Your task to perform on an android device: open app "ZOOM Cloud Meetings" (install if not already installed) and enter user name: "bauxite@icloud.com" and password: "dim" Image 0: 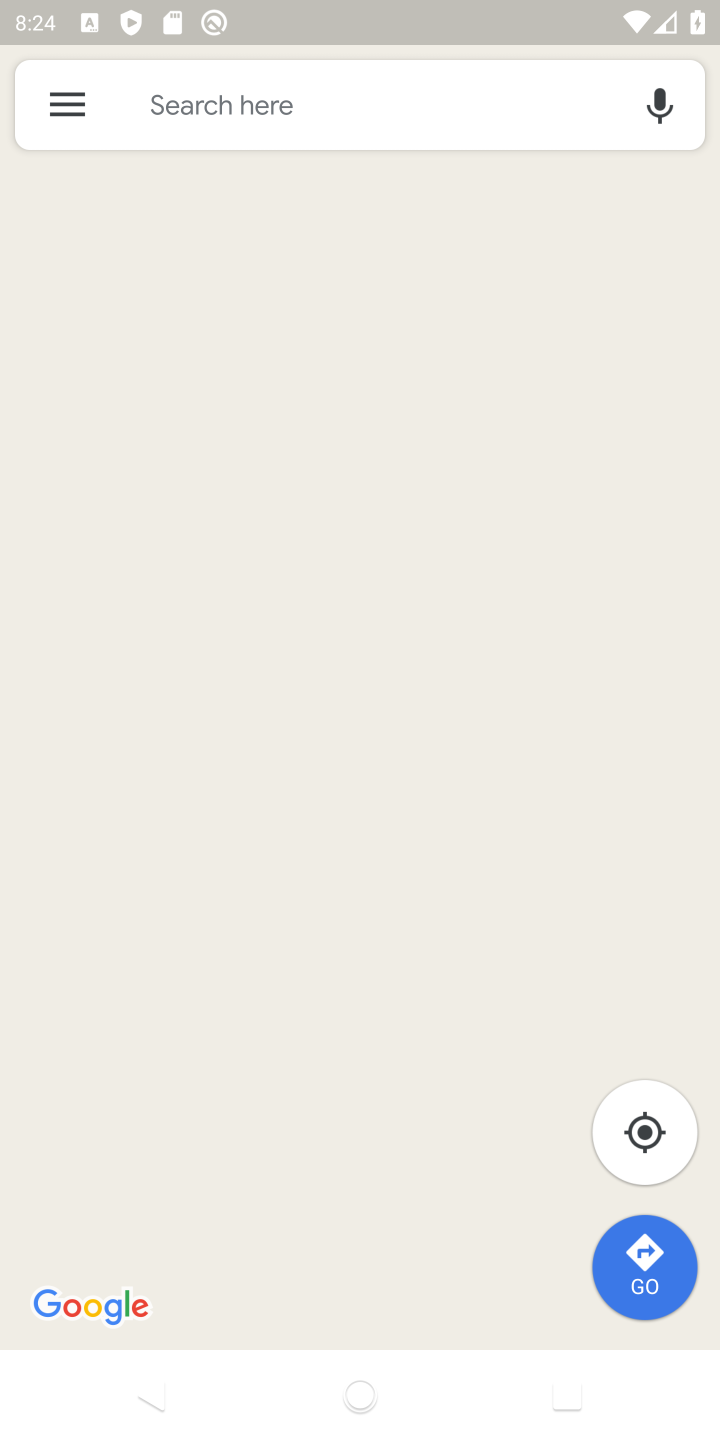
Step 0: press home button
Your task to perform on an android device: open app "ZOOM Cloud Meetings" (install if not already installed) and enter user name: "bauxite@icloud.com" and password: "dim" Image 1: 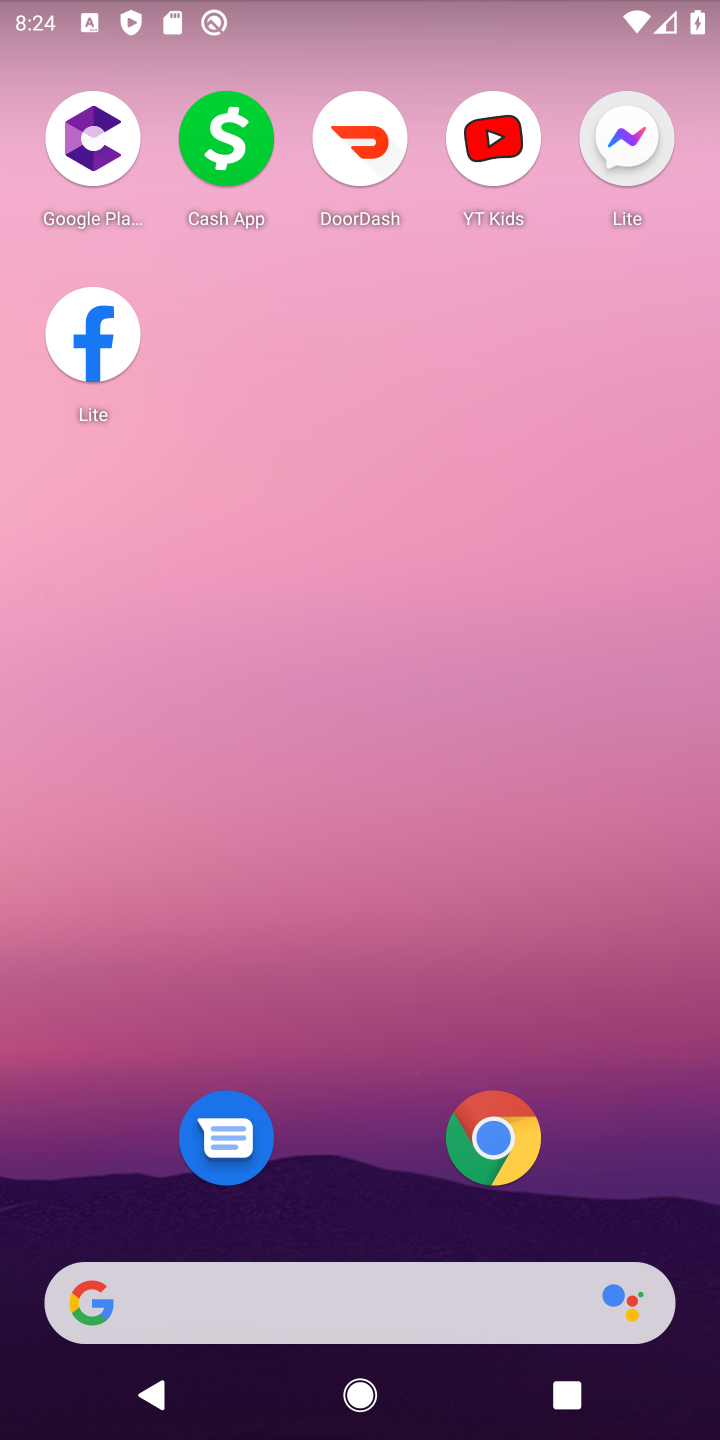
Step 1: drag from (294, 1253) to (353, 258)
Your task to perform on an android device: open app "ZOOM Cloud Meetings" (install if not already installed) and enter user name: "bauxite@icloud.com" and password: "dim" Image 2: 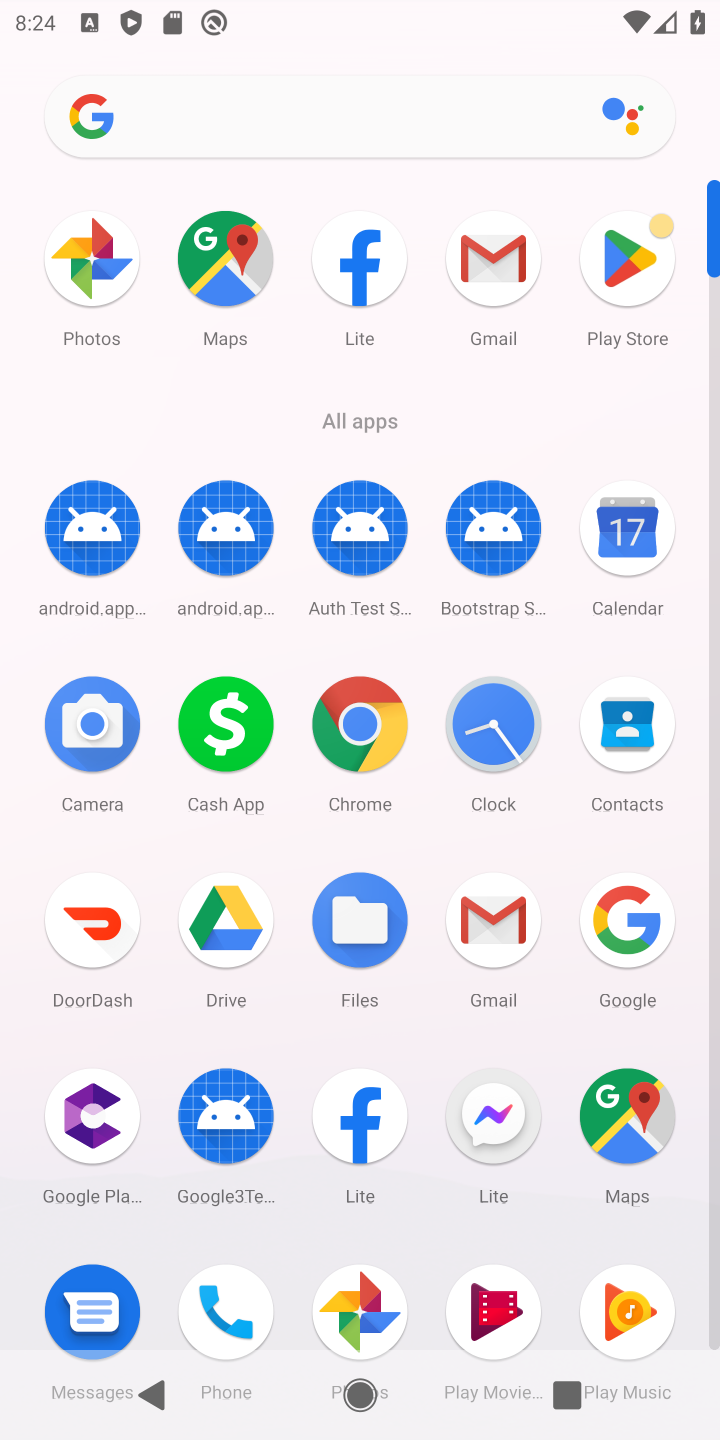
Step 2: click (622, 275)
Your task to perform on an android device: open app "ZOOM Cloud Meetings" (install if not already installed) and enter user name: "bauxite@icloud.com" and password: "dim" Image 3: 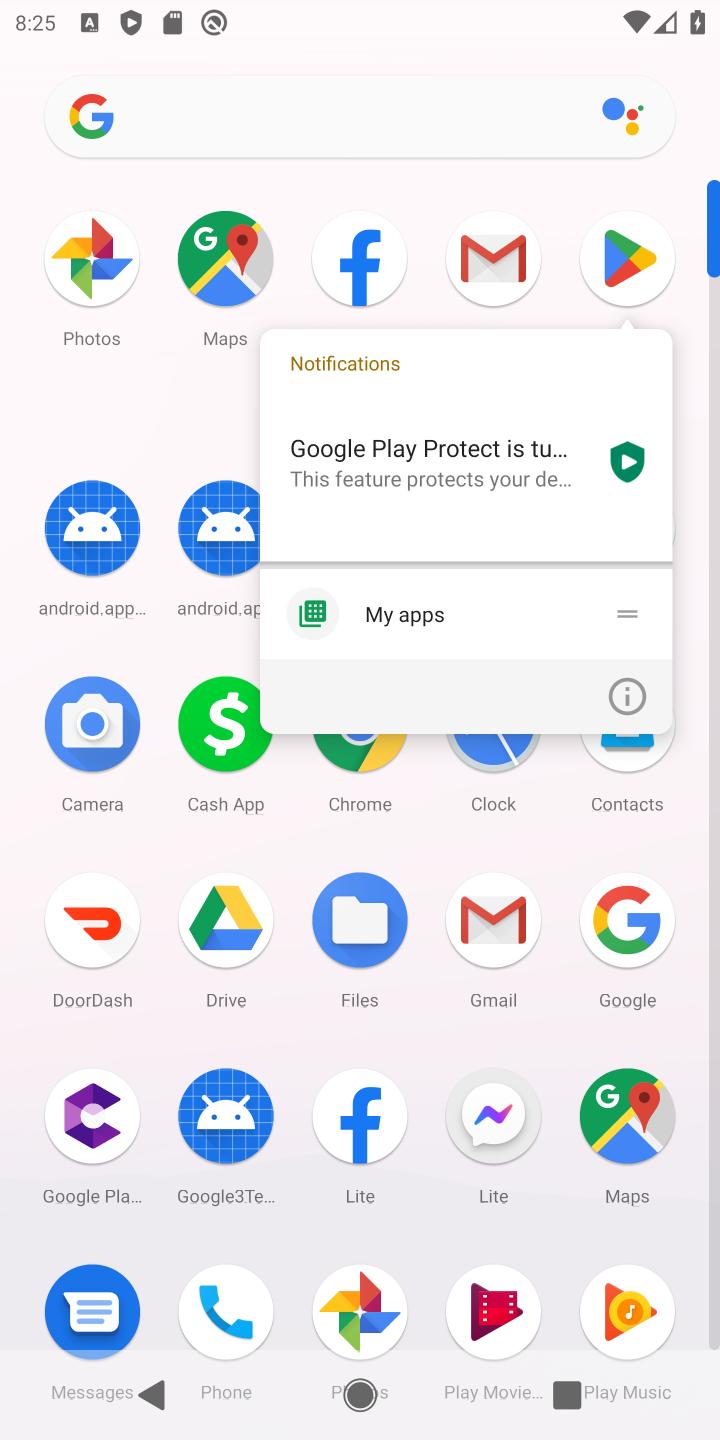
Step 3: click (607, 289)
Your task to perform on an android device: open app "ZOOM Cloud Meetings" (install if not already installed) and enter user name: "bauxite@icloud.com" and password: "dim" Image 4: 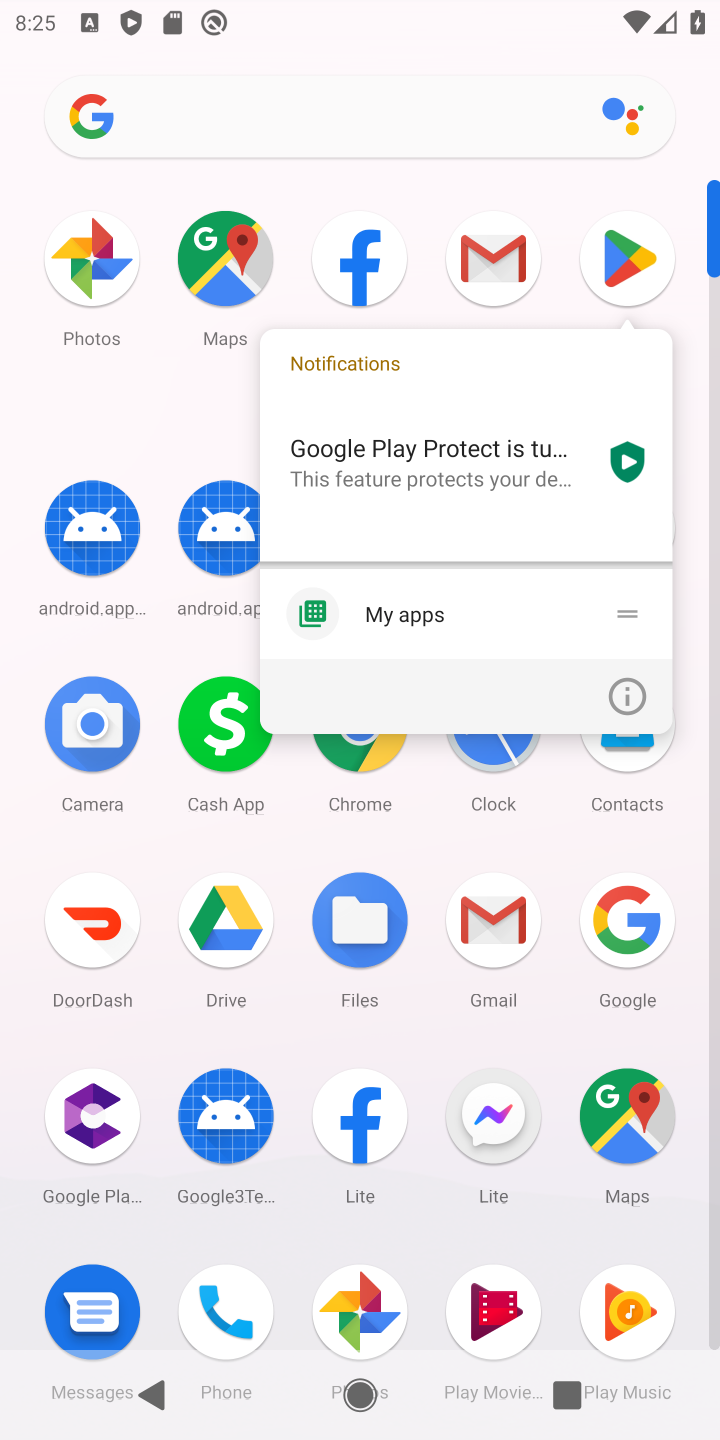
Step 4: click (605, 278)
Your task to perform on an android device: open app "ZOOM Cloud Meetings" (install if not already installed) and enter user name: "bauxite@icloud.com" and password: "dim" Image 5: 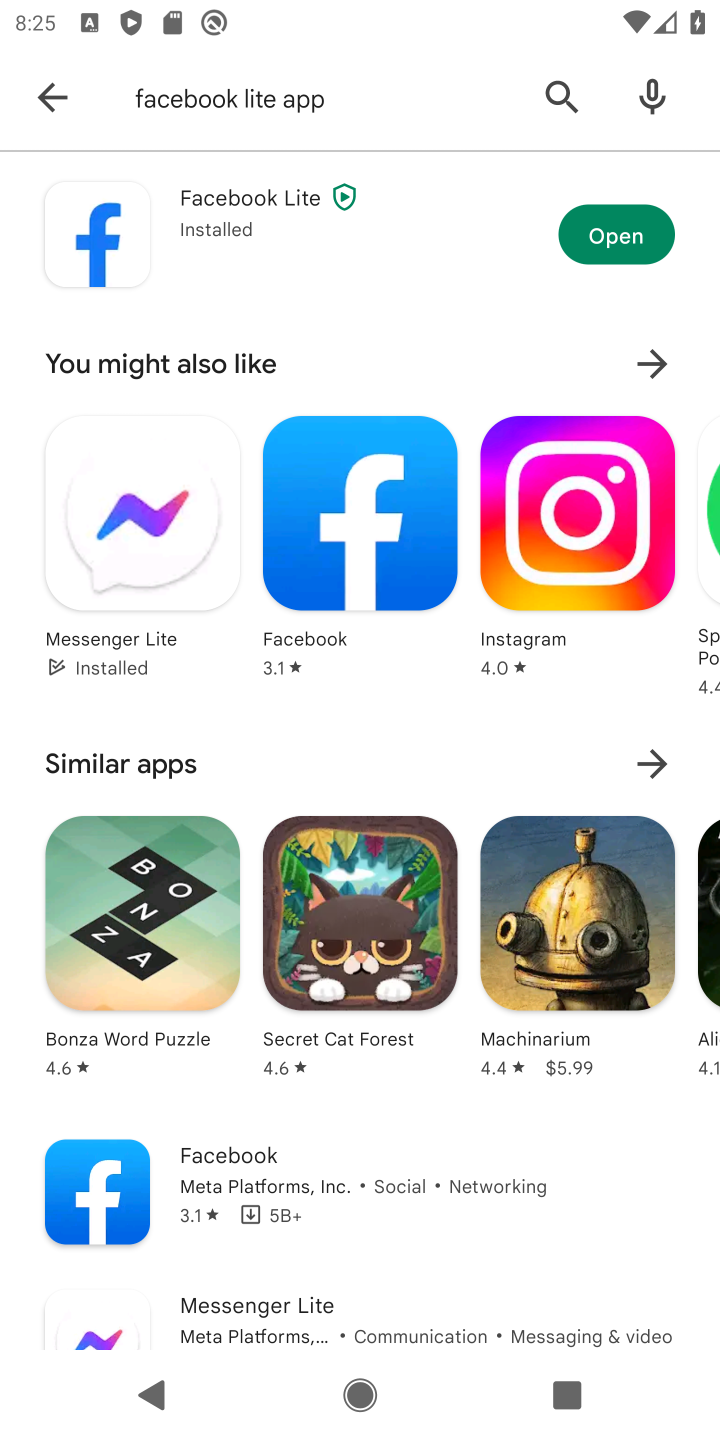
Step 5: click (70, 90)
Your task to perform on an android device: open app "ZOOM Cloud Meetings" (install if not already installed) and enter user name: "bauxite@icloud.com" and password: "dim" Image 6: 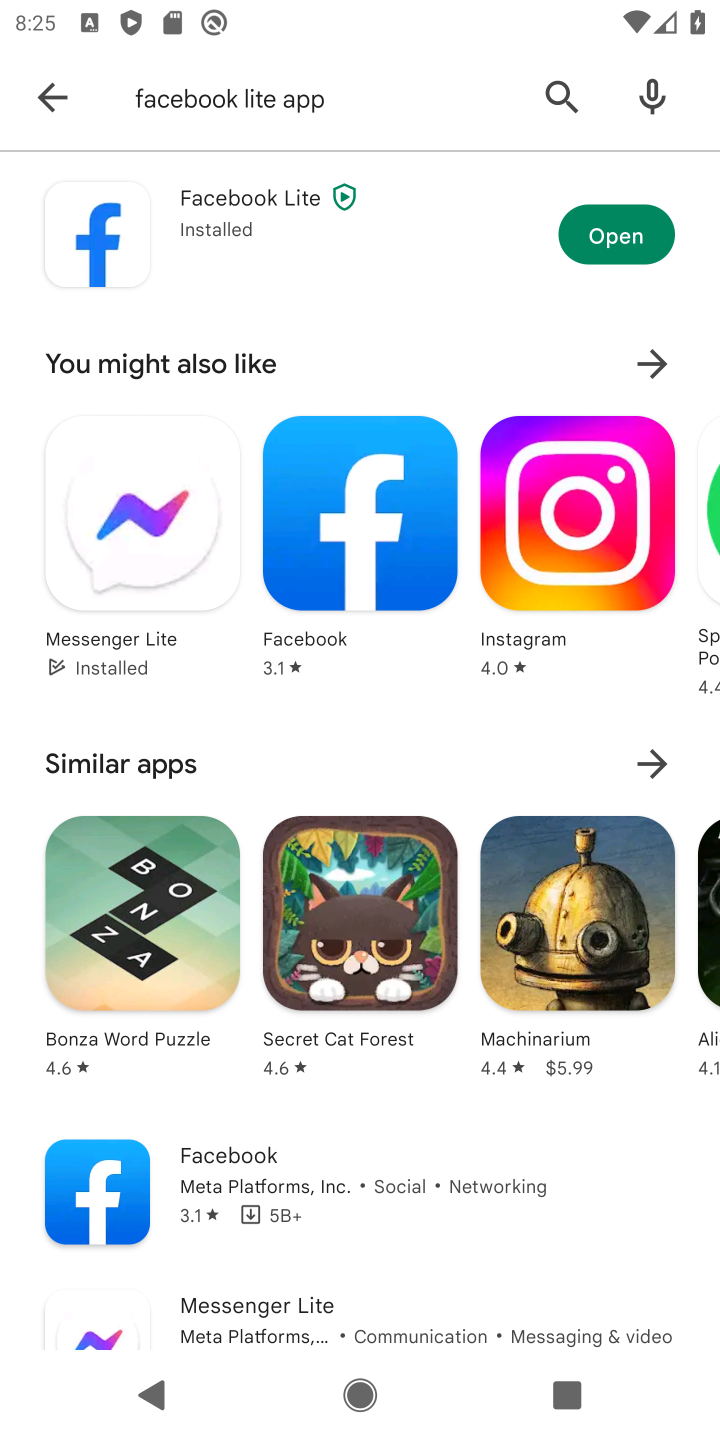
Step 6: click (48, 93)
Your task to perform on an android device: open app "ZOOM Cloud Meetings" (install if not already installed) and enter user name: "bauxite@icloud.com" and password: "dim" Image 7: 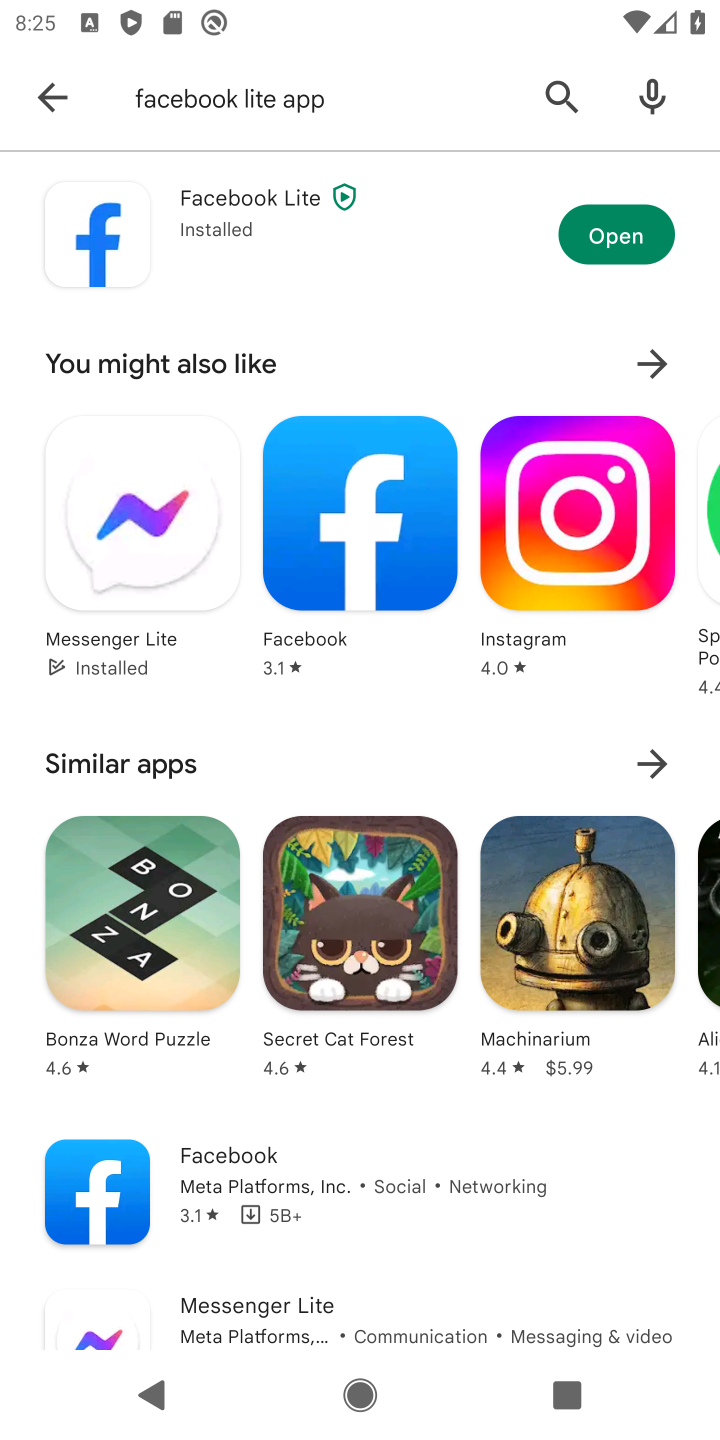
Step 7: click (70, 85)
Your task to perform on an android device: open app "ZOOM Cloud Meetings" (install if not already installed) and enter user name: "bauxite@icloud.com" and password: "dim" Image 8: 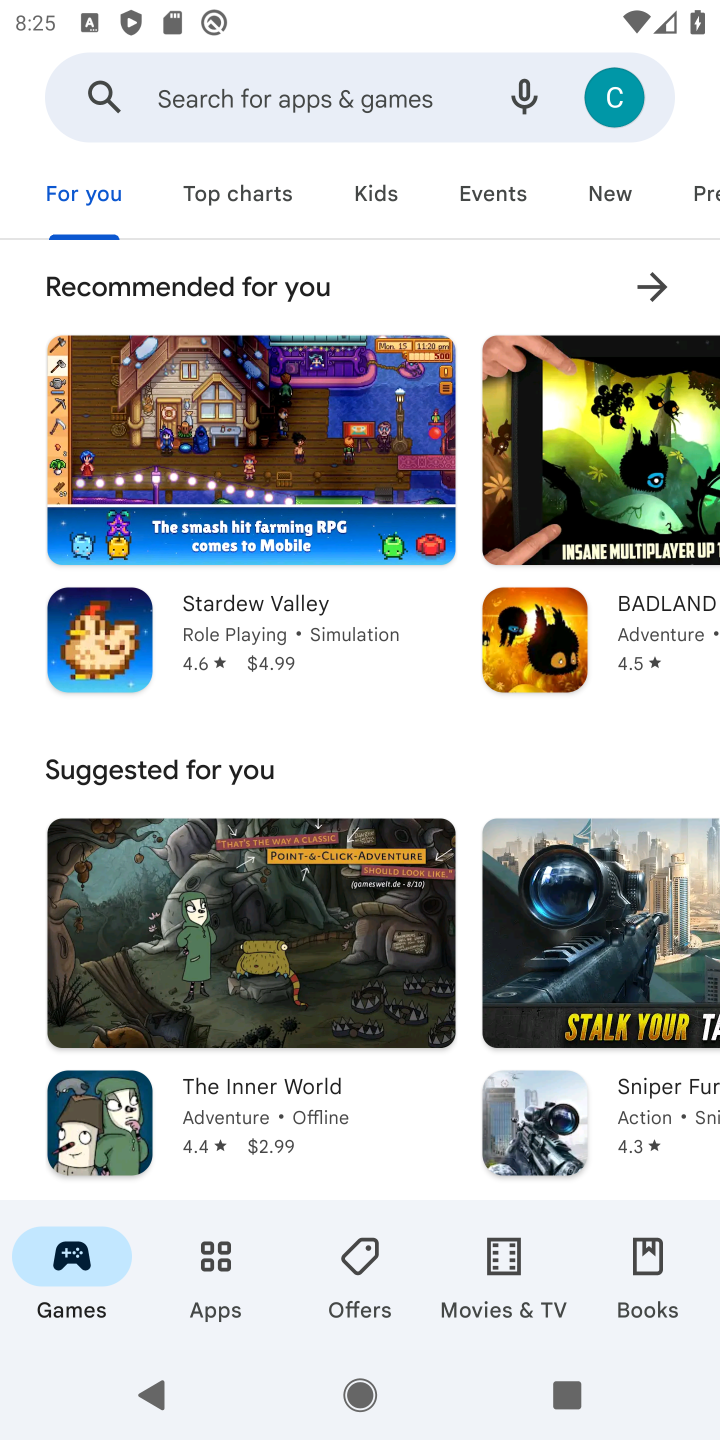
Step 8: click (253, 86)
Your task to perform on an android device: open app "ZOOM Cloud Meetings" (install if not already installed) and enter user name: "bauxite@icloud.com" and password: "dim" Image 9: 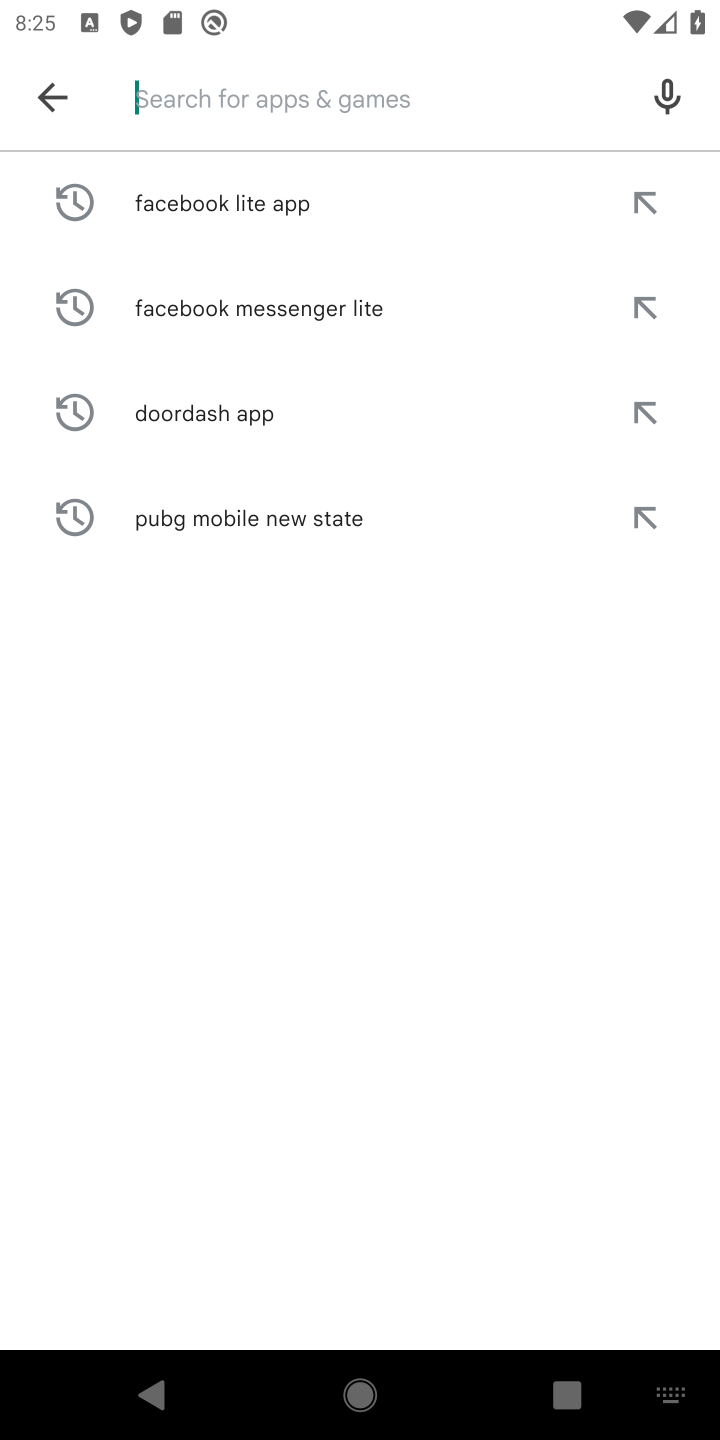
Step 9: type "ZOOM Cloud Meeting "
Your task to perform on an android device: open app "ZOOM Cloud Meetings" (install if not already installed) and enter user name: "bauxite@icloud.com" and password: "dim" Image 10: 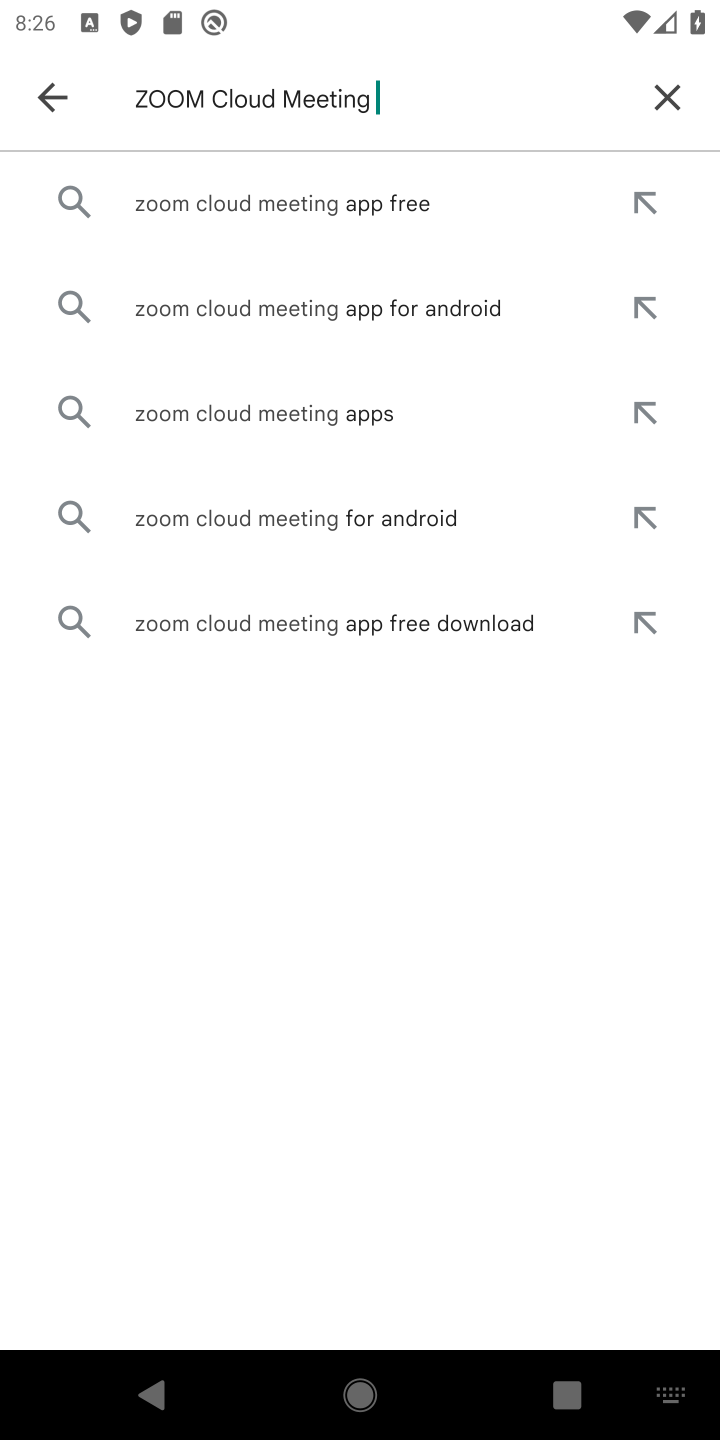
Step 10: click (316, 211)
Your task to perform on an android device: open app "ZOOM Cloud Meetings" (install if not already installed) and enter user name: "bauxite@icloud.com" and password: "dim" Image 11: 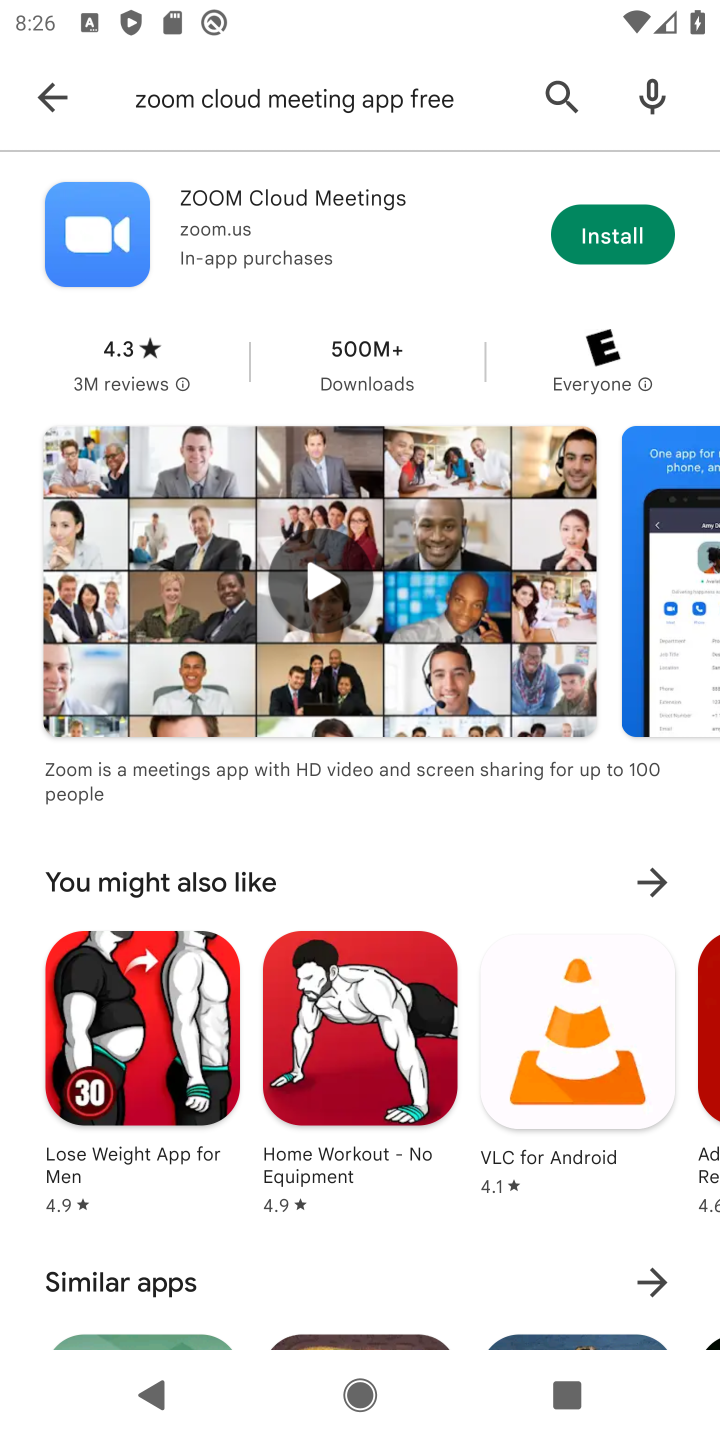
Step 11: click (619, 243)
Your task to perform on an android device: open app "ZOOM Cloud Meetings" (install if not already installed) and enter user name: "bauxite@icloud.com" and password: "dim" Image 12: 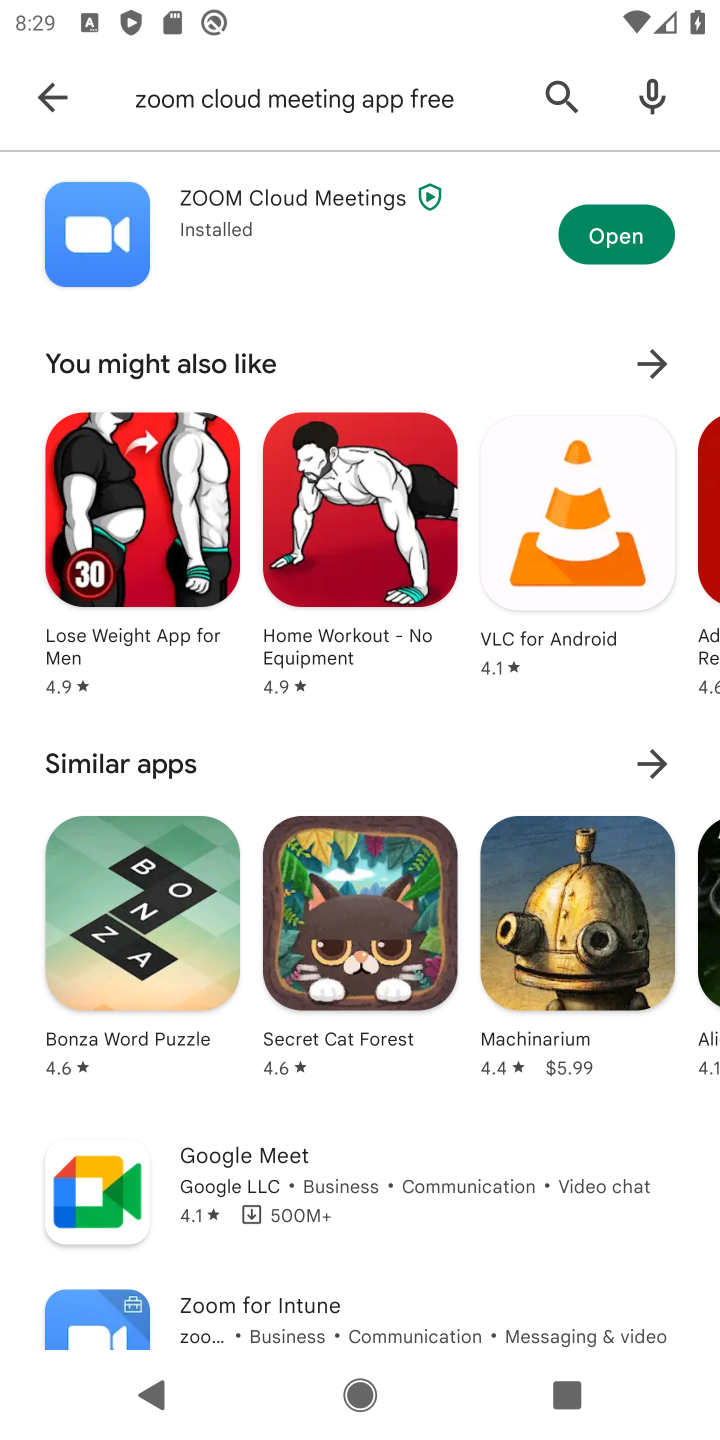
Step 12: click (612, 212)
Your task to perform on an android device: open app "ZOOM Cloud Meetings" (install if not already installed) and enter user name: "bauxite@icloud.com" and password: "dim" Image 13: 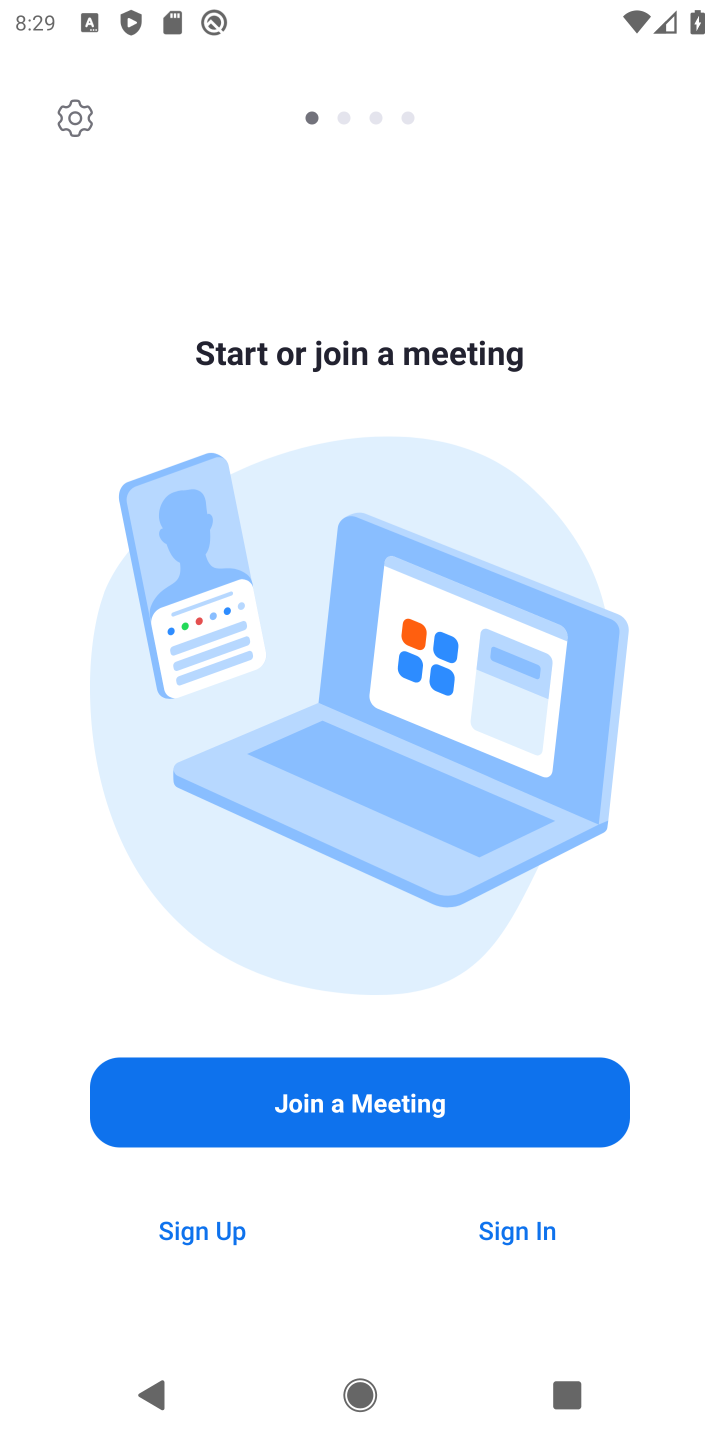
Step 13: click (476, 1228)
Your task to perform on an android device: open app "ZOOM Cloud Meetings" (install if not already installed) and enter user name: "bauxite@icloud.com" and password: "dim" Image 14: 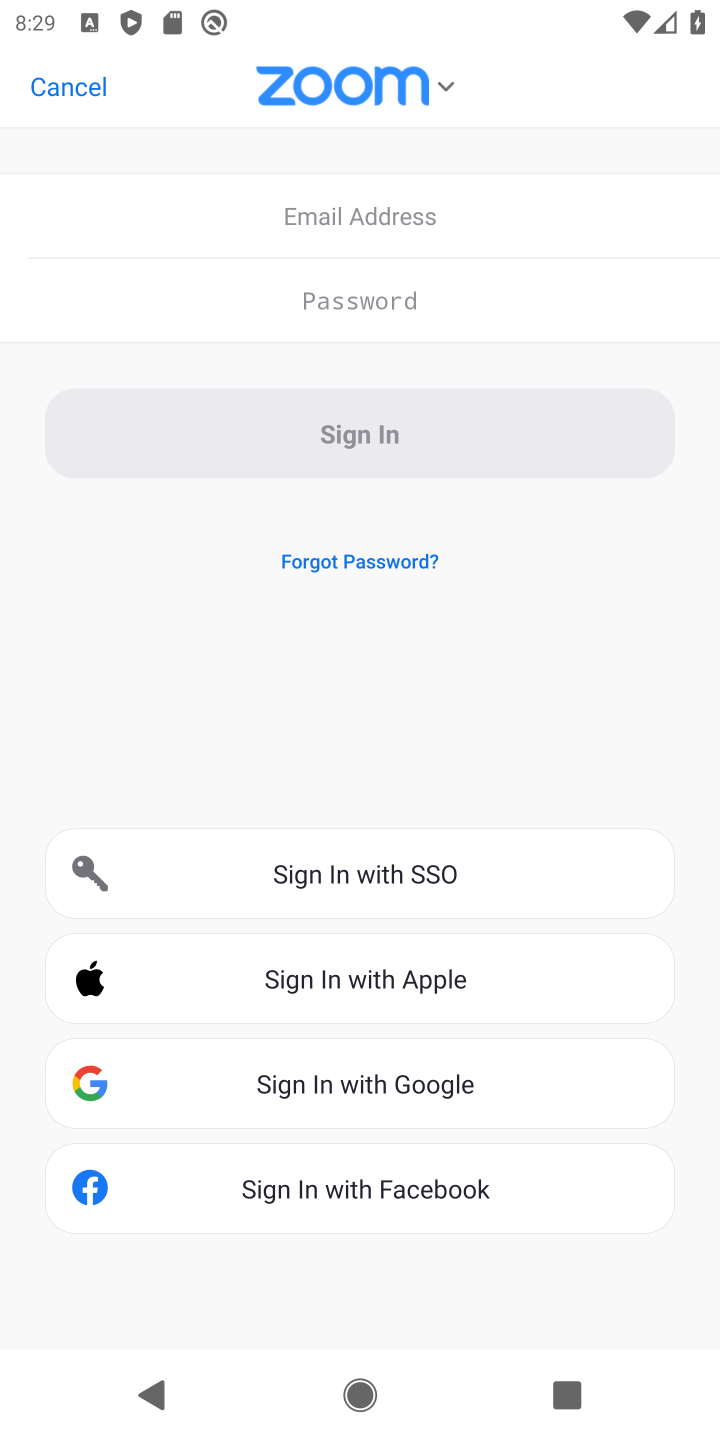
Step 14: click (425, 194)
Your task to perform on an android device: open app "ZOOM Cloud Meetings" (install if not already installed) and enter user name: "bauxite@icloud.com" and password: "dim" Image 15: 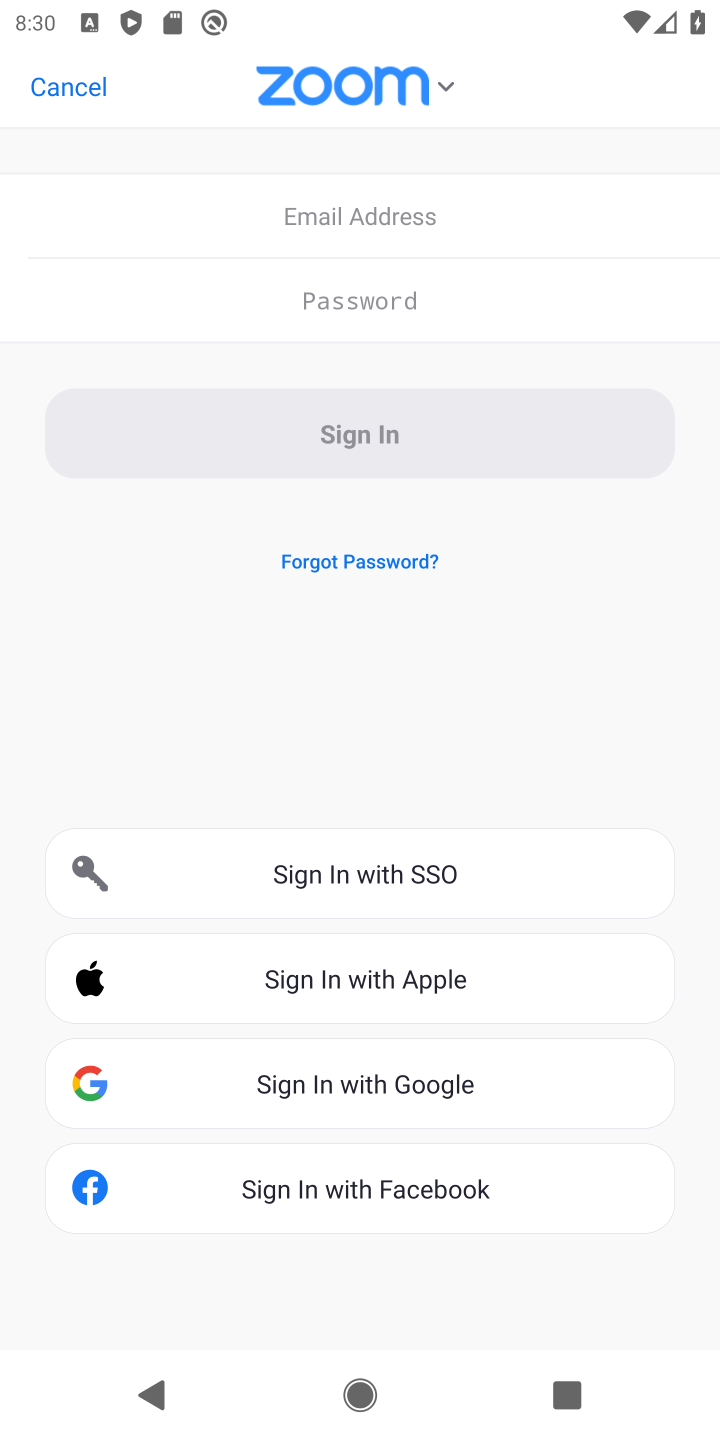
Step 15: click (350, 196)
Your task to perform on an android device: open app "ZOOM Cloud Meetings" (install if not already installed) and enter user name: "bauxite@icloud.com" and password: "dim" Image 16: 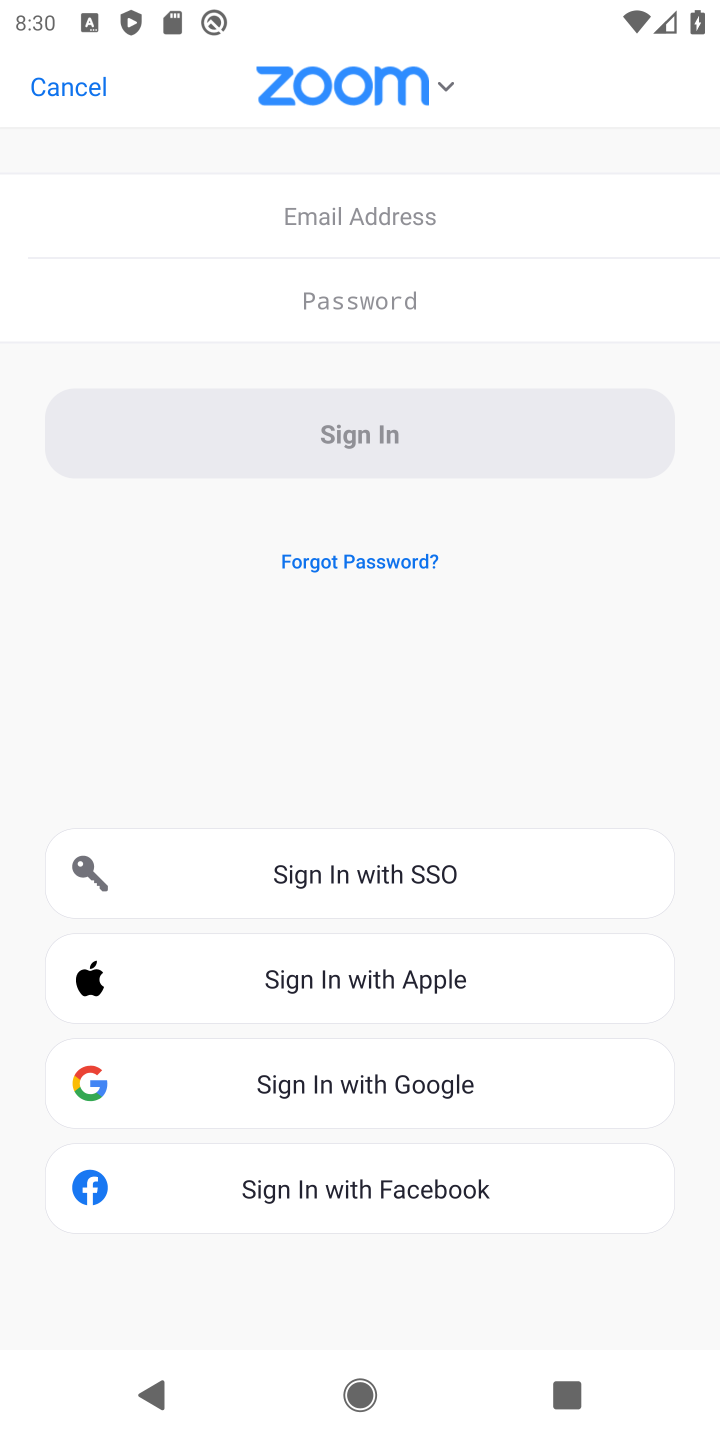
Step 16: type "bauxite@icloud.com "
Your task to perform on an android device: open app "ZOOM Cloud Meetings" (install if not already installed) and enter user name: "bauxite@icloud.com" and password: "dim" Image 17: 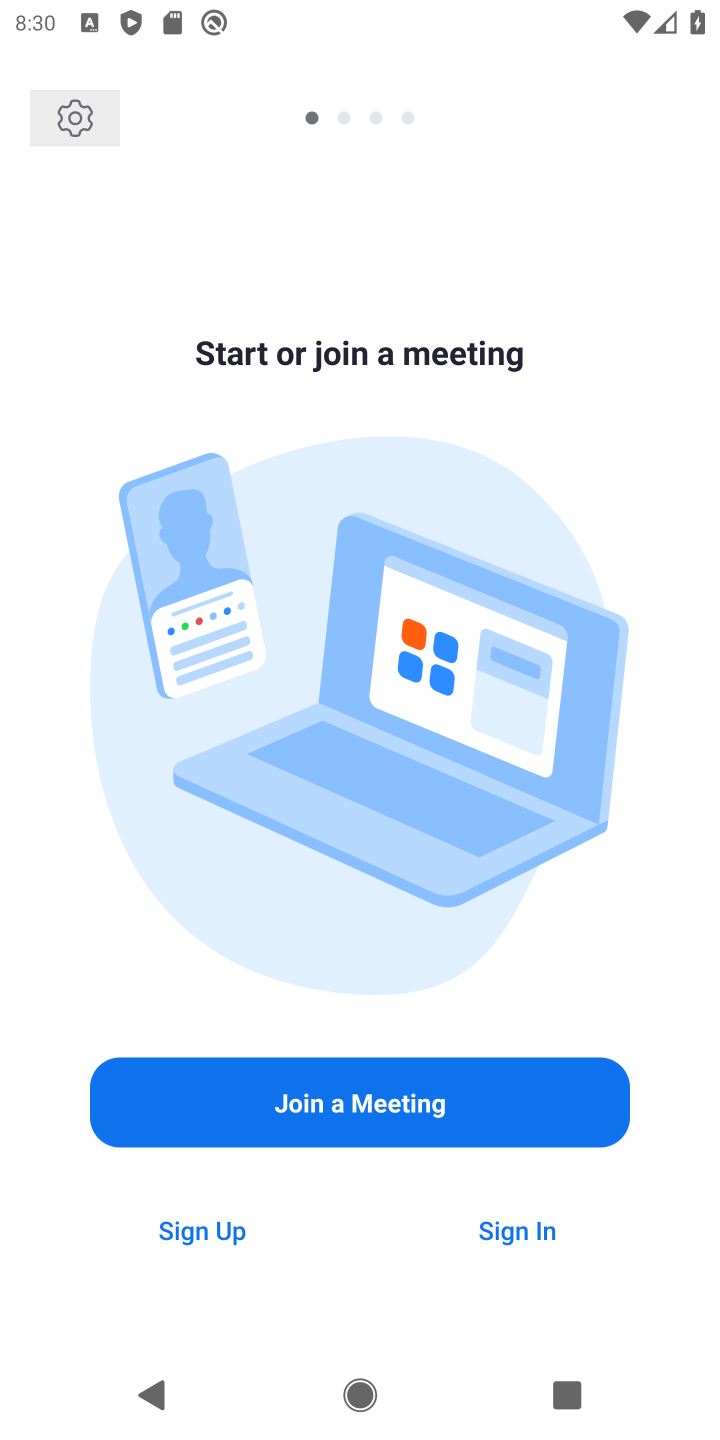
Step 17: task complete